Your task to perform on an android device: check storage Image 0: 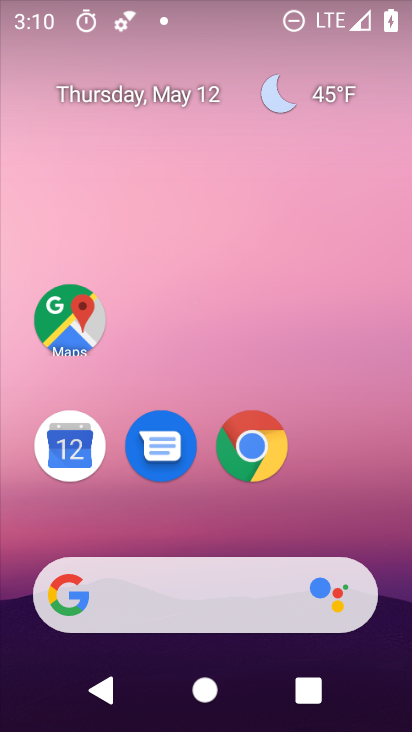
Step 0: drag from (196, 526) to (262, 204)
Your task to perform on an android device: check storage Image 1: 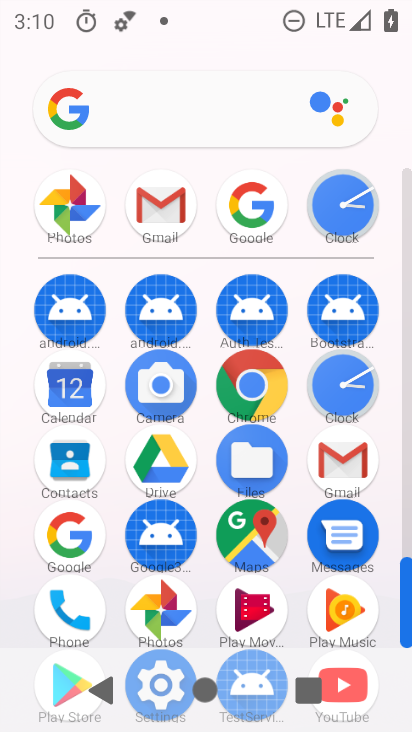
Step 1: drag from (179, 513) to (216, 305)
Your task to perform on an android device: check storage Image 2: 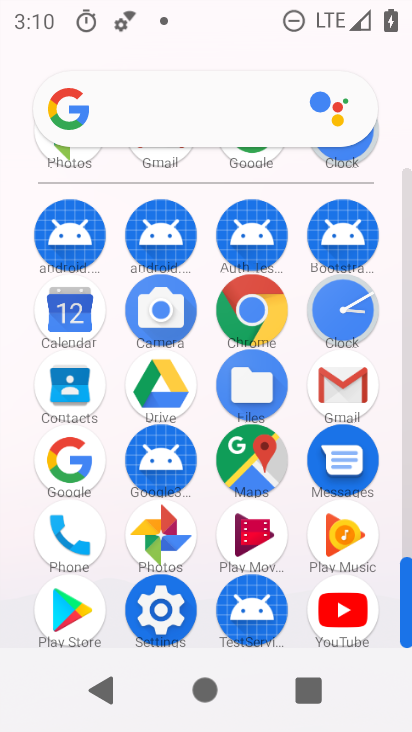
Step 2: click (157, 576)
Your task to perform on an android device: check storage Image 3: 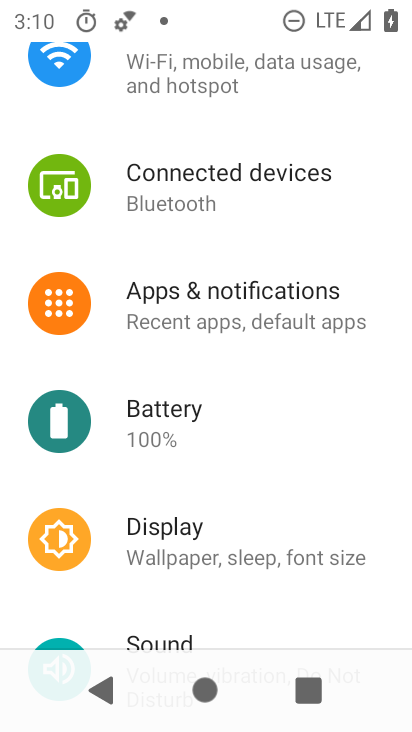
Step 3: drag from (255, 533) to (263, 335)
Your task to perform on an android device: check storage Image 4: 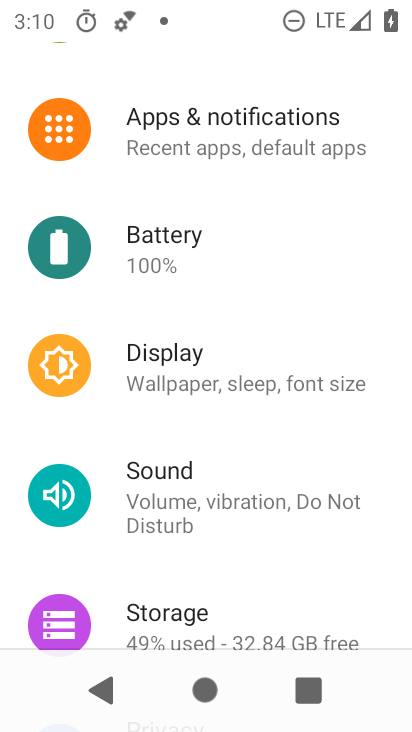
Step 4: drag from (206, 572) to (223, 481)
Your task to perform on an android device: check storage Image 5: 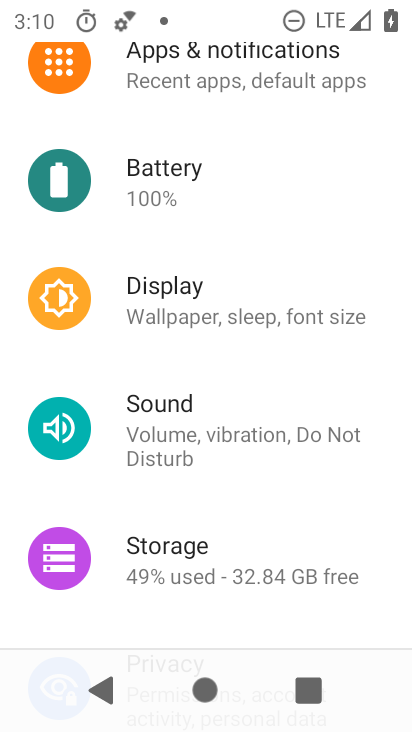
Step 5: click (206, 527)
Your task to perform on an android device: check storage Image 6: 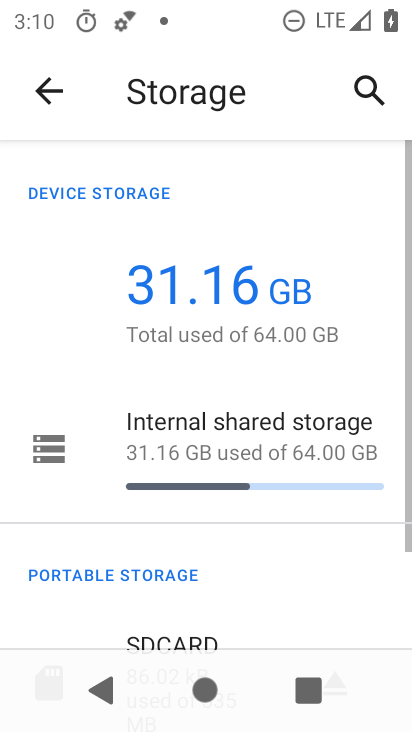
Step 6: task complete